Your task to perform on an android device: move a message to another label in the gmail app Image 0: 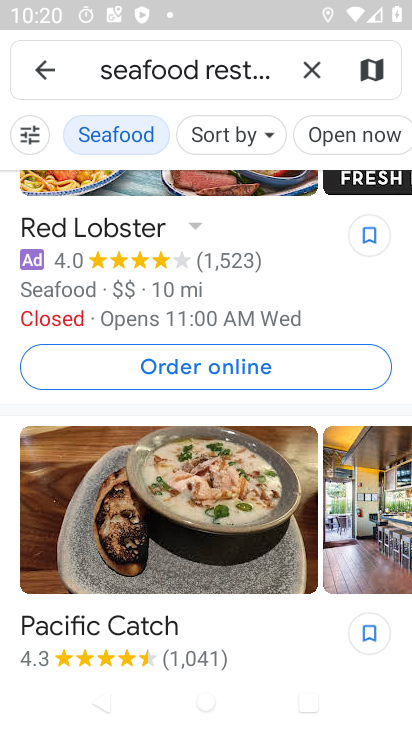
Step 0: press home button
Your task to perform on an android device: move a message to another label in the gmail app Image 1: 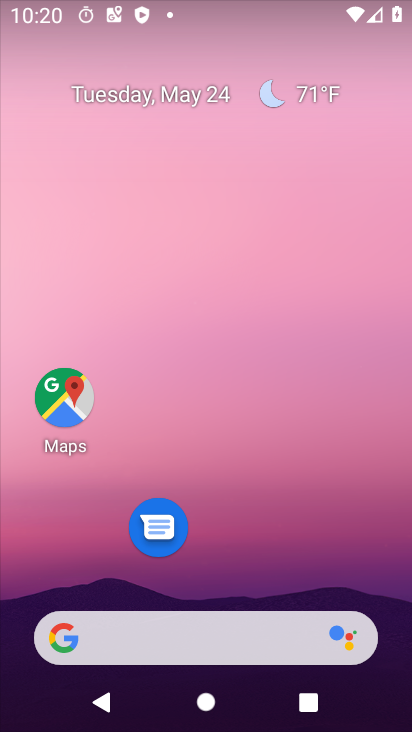
Step 1: drag from (262, 571) to (268, 77)
Your task to perform on an android device: move a message to another label in the gmail app Image 2: 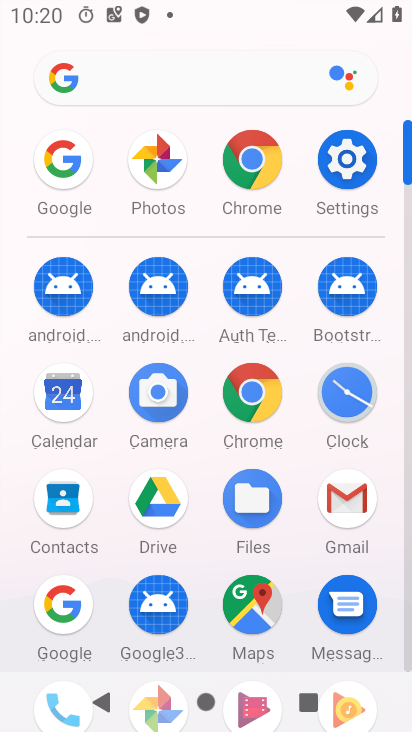
Step 2: click (343, 500)
Your task to perform on an android device: move a message to another label in the gmail app Image 3: 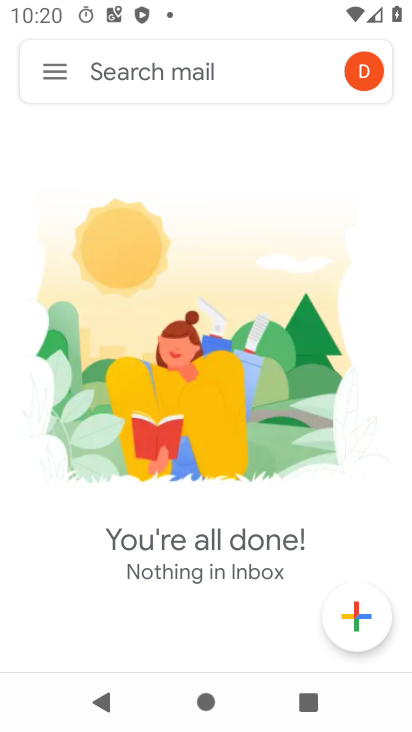
Step 3: click (55, 71)
Your task to perform on an android device: move a message to another label in the gmail app Image 4: 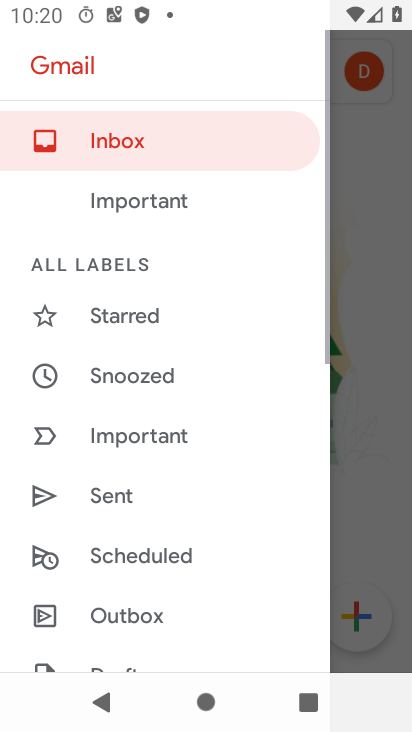
Step 4: drag from (134, 594) to (168, 182)
Your task to perform on an android device: move a message to another label in the gmail app Image 5: 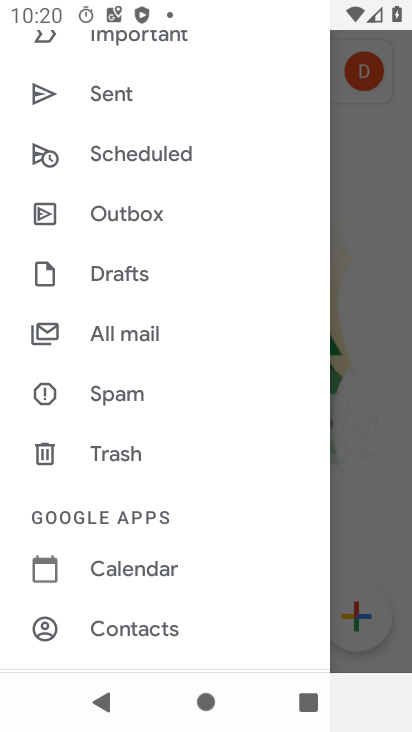
Step 5: click (105, 337)
Your task to perform on an android device: move a message to another label in the gmail app Image 6: 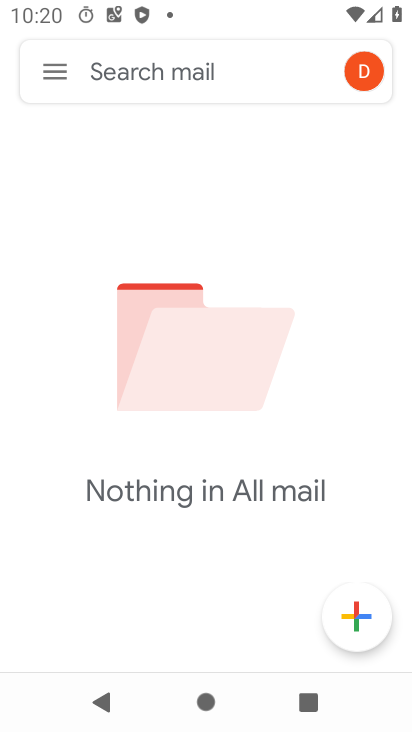
Step 6: task complete